Your task to perform on an android device: Go to sound settings Image 0: 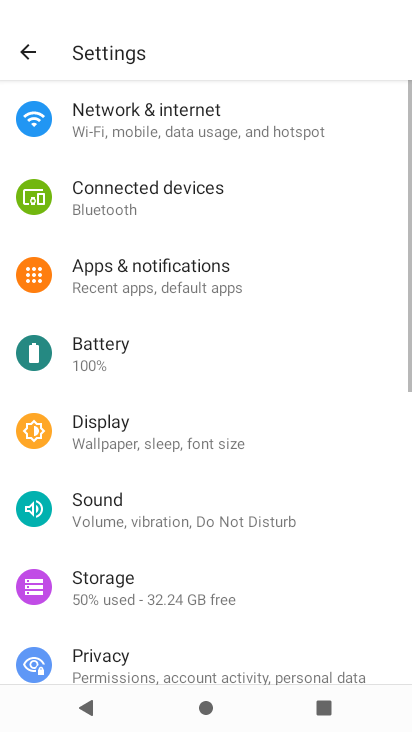
Step 0: press home button
Your task to perform on an android device: Go to sound settings Image 1: 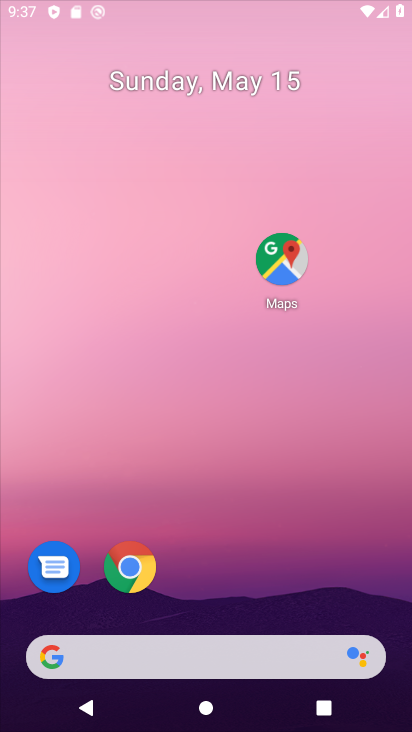
Step 1: drag from (248, 571) to (254, 4)
Your task to perform on an android device: Go to sound settings Image 2: 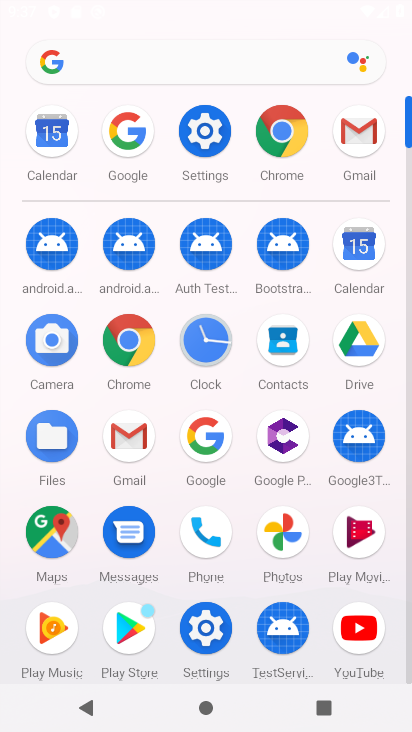
Step 2: click (204, 123)
Your task to perform on an android device: Go to sound settings Image 3: 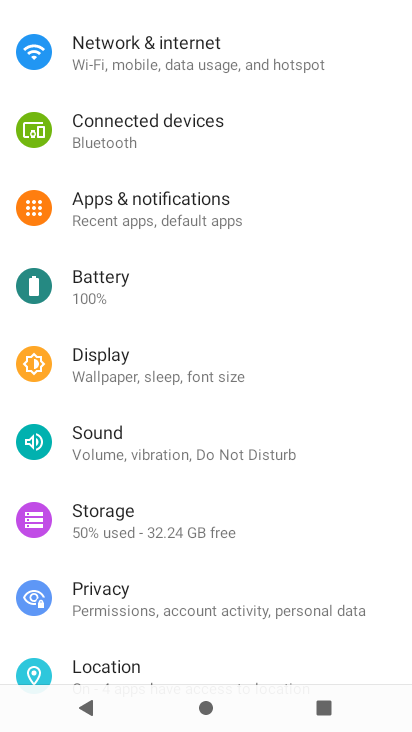
Step 3: click (138, 453)
Your task to perform on an android device: Go to sound settings Image 4: 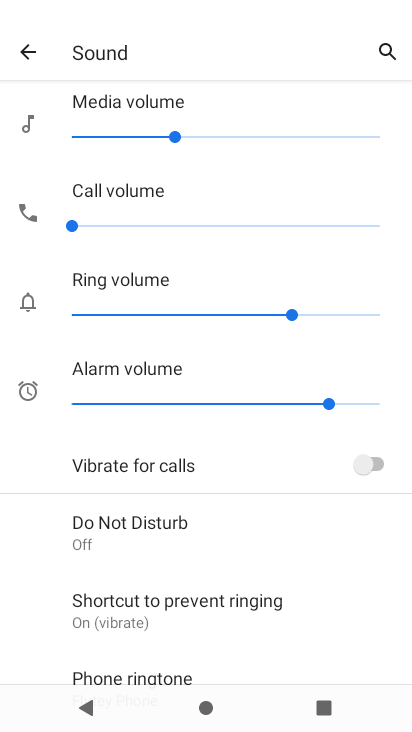
Step 4: task complete